Your task to perform on an android device: turn on the 12-hour format for clock Image 0: 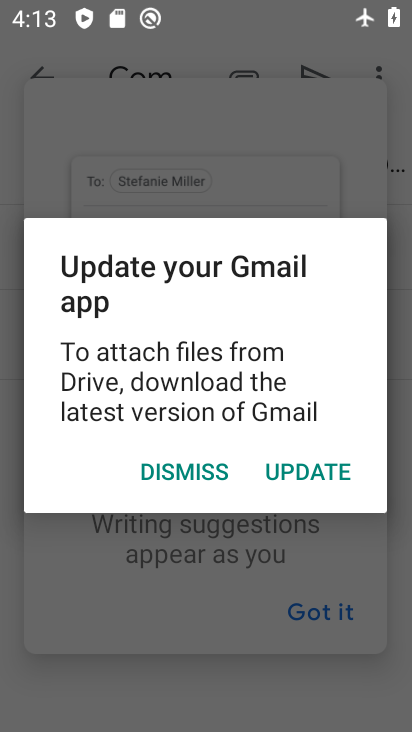
Step 0: press home button
Your task to perform on an android device: turn on the 12-hour format for clock Image 1: 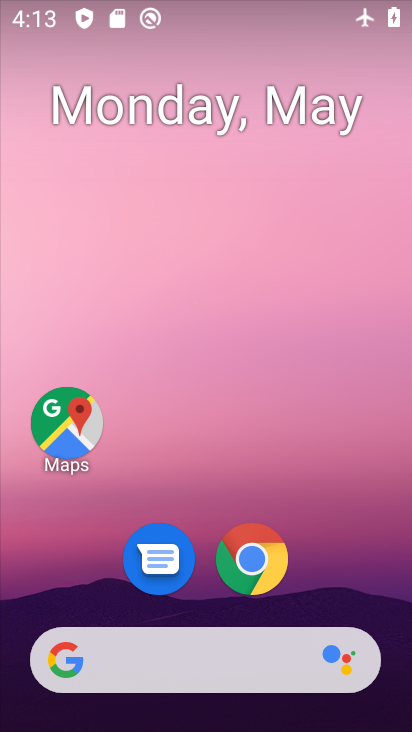
Step 1: drag from (296, 653) to (275, 40)
Your task to perform on an android device: turn on the 12-hour format for clock Image 2: 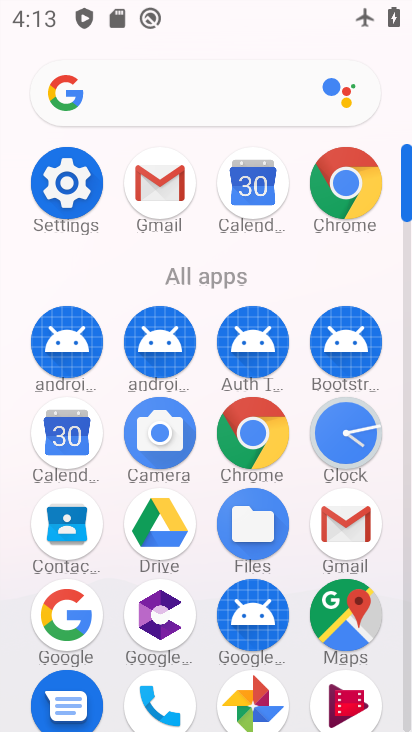
Step 2: click (348, 448)
Your task to perform on an android device: turn on the 12-hour format for clock Image 3: 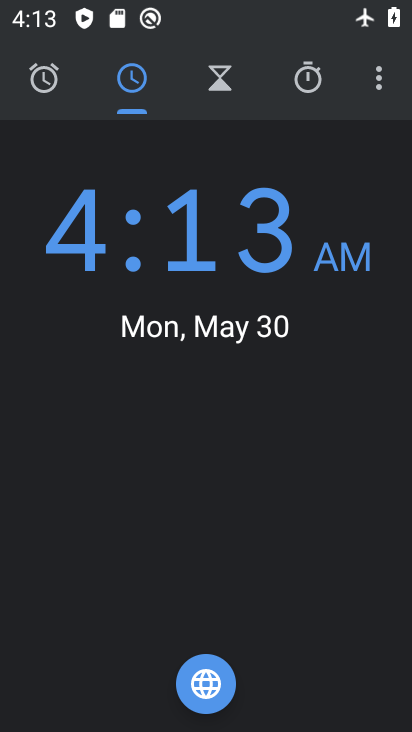
Step 3: click (378, 82)
Your task to perform on an android device: turn on the 12-hour format for clock Image 4: 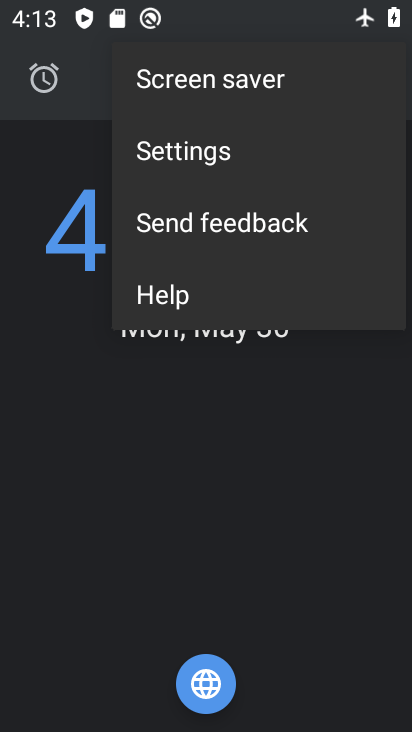
Step 4: click (230, 149)
Your task to perform on an android device: turn on the 12-hour format for clock Image 5: 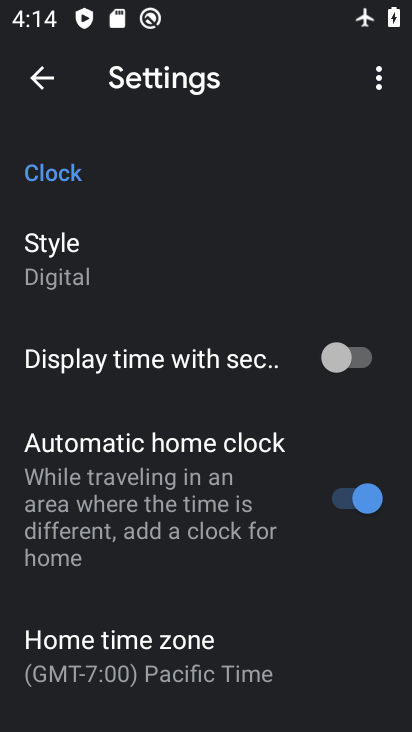
Step 5: drag from (218, 681) to (287, 83)
Your task to perform on an android device: turn on the 12-hour format for clock Image 6: 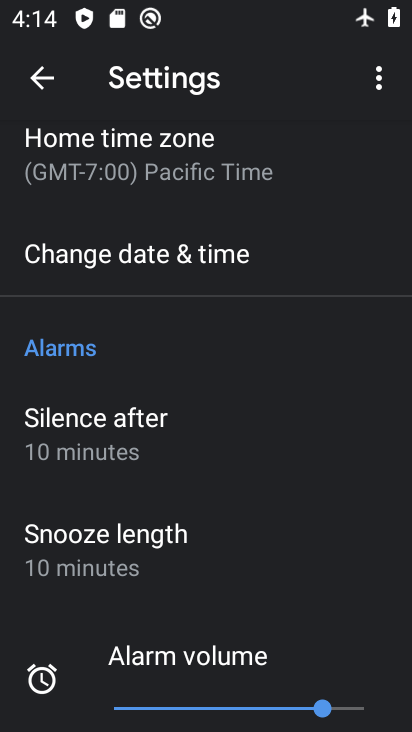
Step 6: click (188, 268)
Your task to perform on an android device: turn on the 12-hour format for clock Image 7: 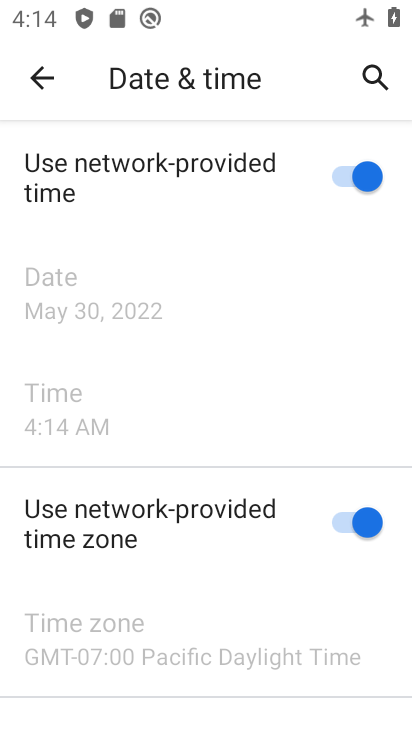
Step 7: task complete